Your task to perform on an android device: Open calendar and show me the fourth week of next month Image 0: 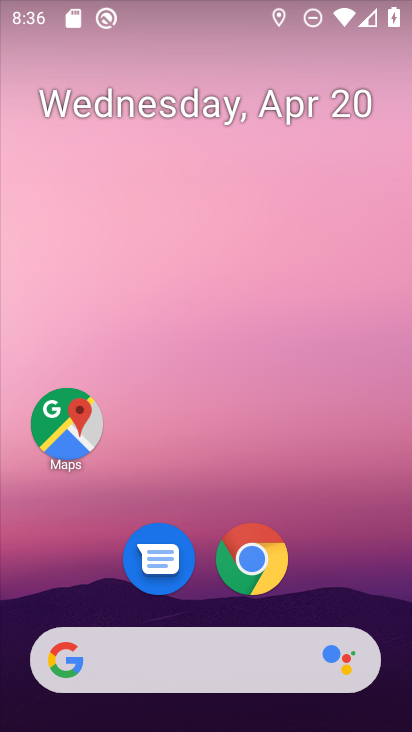
Step 0: drag from (399, 622) to (307, 98)
Your task to perform on an android device: Open calendar and show me the fourth week of next month Image 1: 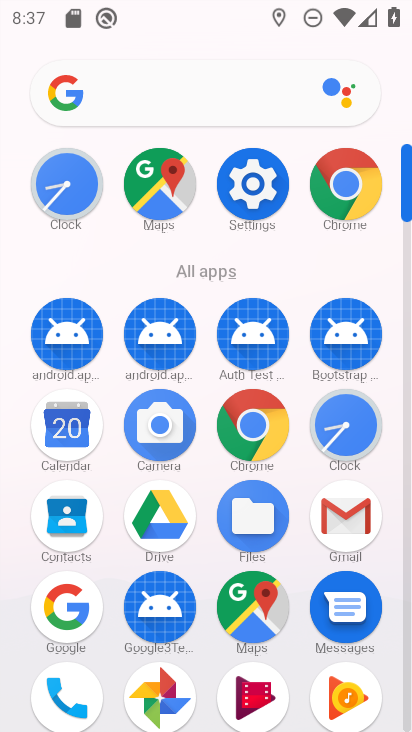
Step 1: click (410, 701)
Your task to perform on an android device: Open calendar and show me the fourth week of next month Image 2: 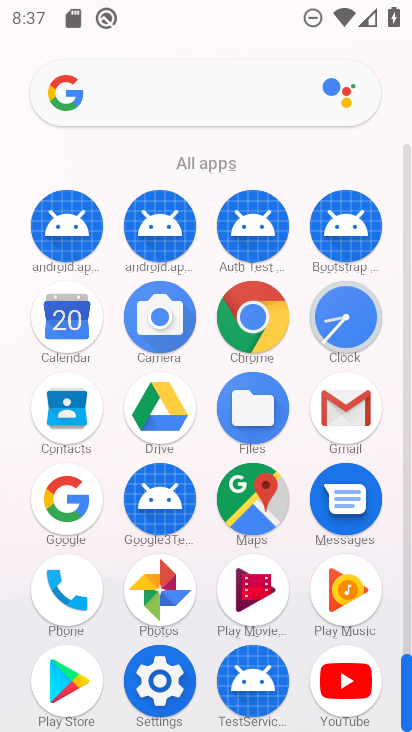
Step 2: click (54, 309)
Your task to perform on an android device: Open calendar and show me the fourth week of next month Image 3: 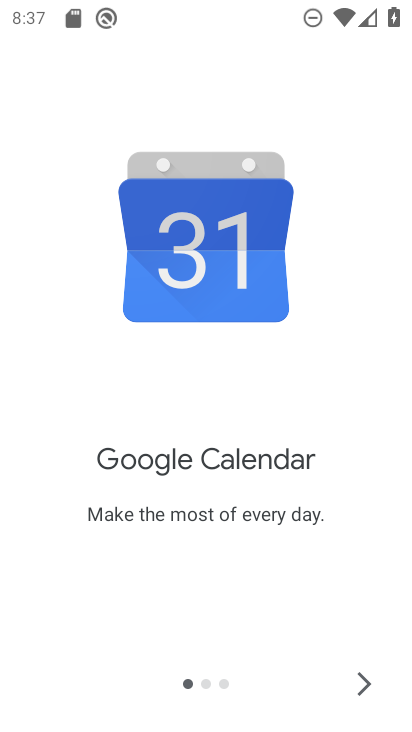
Step 3: click (365, 679)
Your task to perform on an android device: Open calendar and show me the fourth week of next month Image 4: 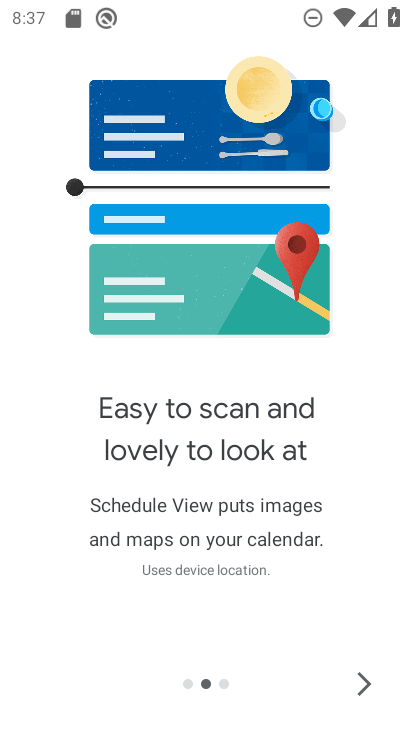
Step 4: click (365, 679)
Your task to perform on an android device: Open calendar and show me the fourth week of next month Image 5: 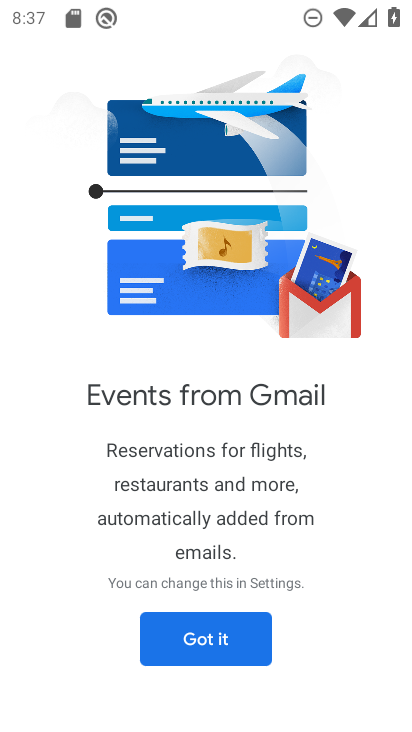
Step 5: click (217, 640)
Your task to perform on an android device: Open calendar and show me the fourth week of next month Image 6: 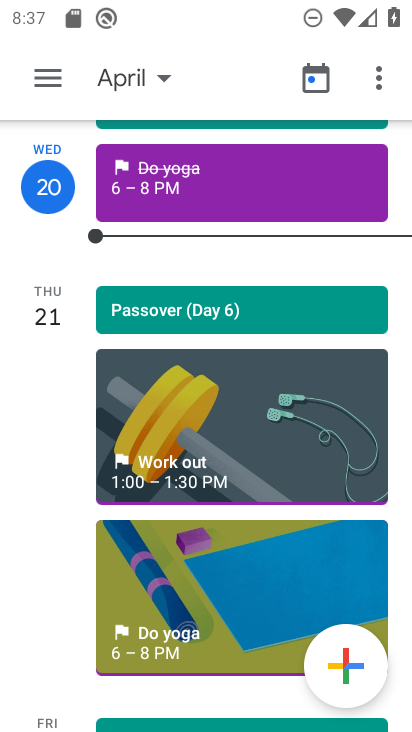
Step 6: click (44, 73)
Your task to perform on an android device: Open calendar and show me the fourth week of next month Image 7: 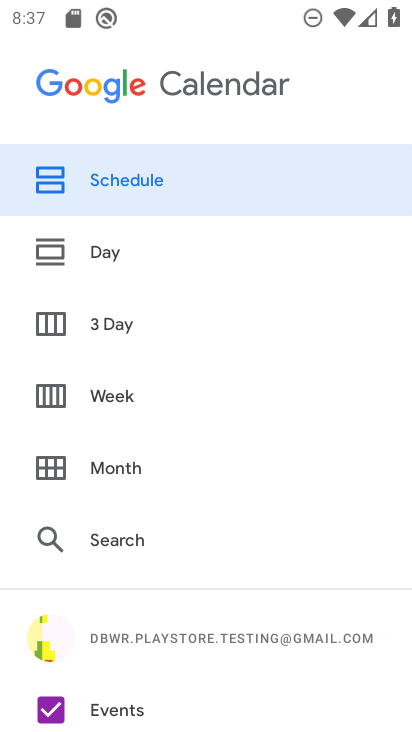
Step 7: click (119, 396)
Your task to perform on an android device: Open calendar and show me the fourth week of next month Image 8: 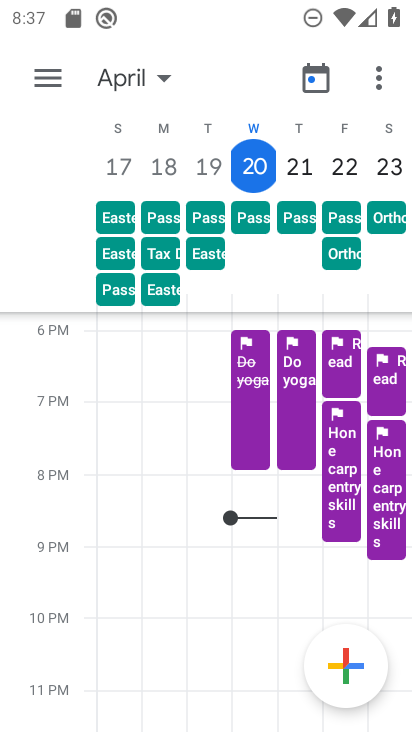
Step 8: click (159, 75)
Your task to perform on an android device: Open calendar and show me the fourth week of next month Image 9: 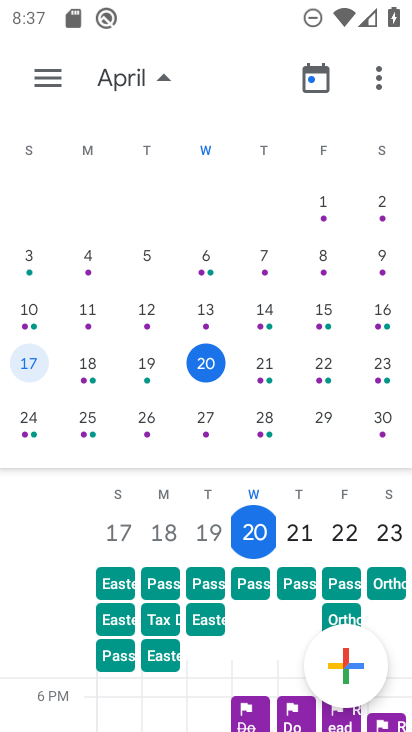
Step 9: drag from (368, 363) to (0, 302)
Your task to perform on an android device: Open calendar and show me the fourth week of next month Image 10: 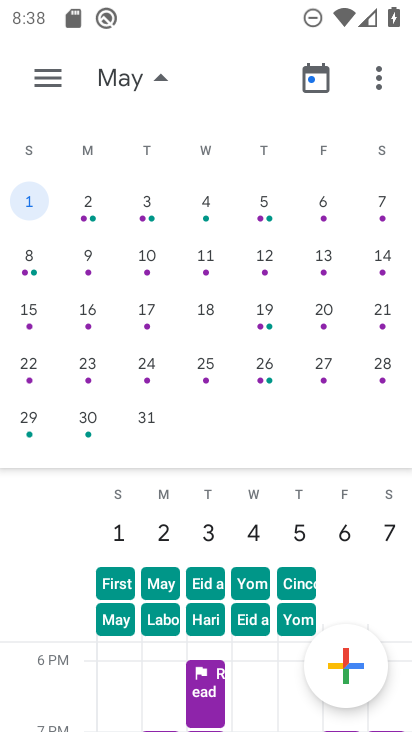
Step 10: click (27, 363)
Your task to perform on an android device: Open calendar and show me the fourth week of next month Image 11: 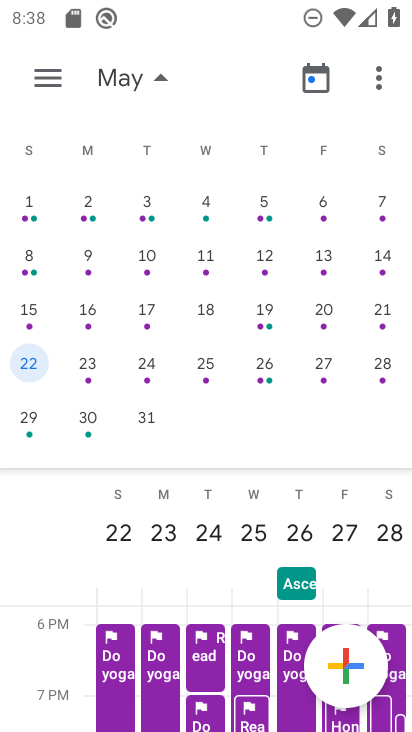
Step 11: task complete